Your task to perform on an android device: Go to Google maps Image 0: 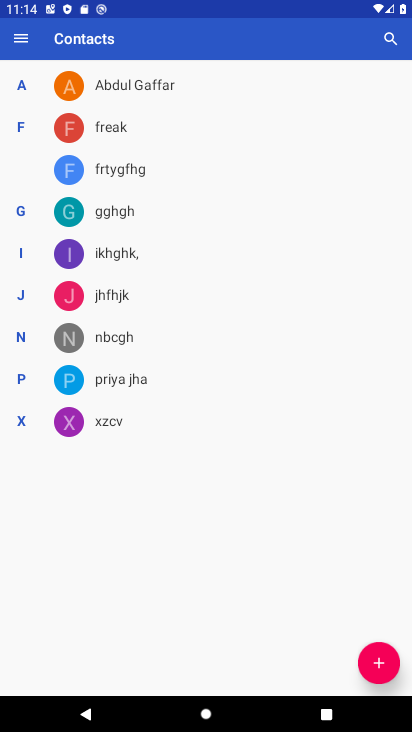
Step 0: press home button
Your task to perform on an android device: Go to Google maps Image 1: 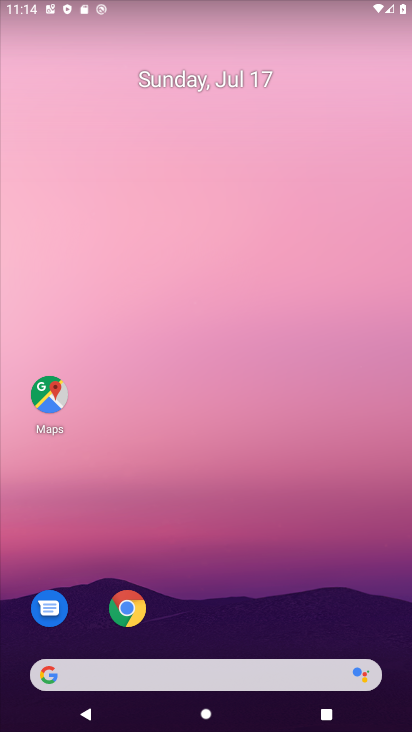
Step 1: click (41, 395)
Your task to perform on an android device: Go to Google maps Image 2: 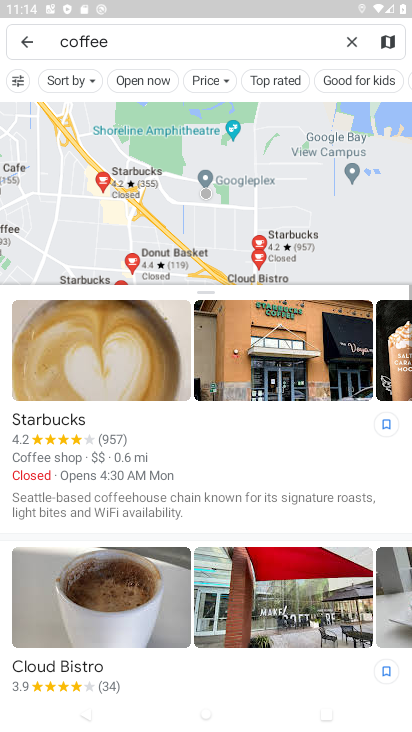
Step 2: click (24, 42)
Your task to perform on an android device: Go to Google maps Image 3: 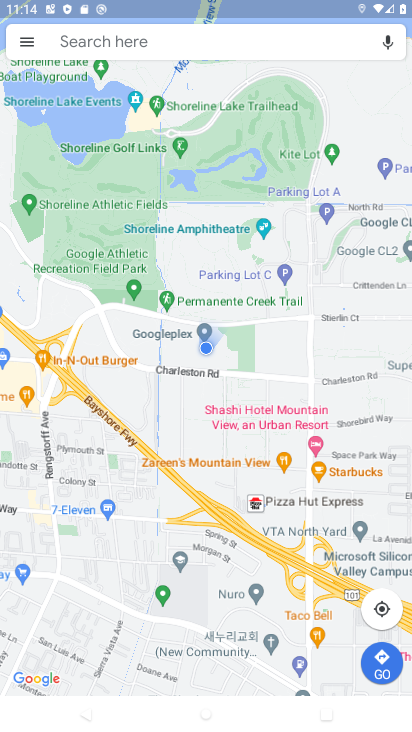
Step 3: task complete